Your task to perform on an android device: all mails in gmail Image 0: 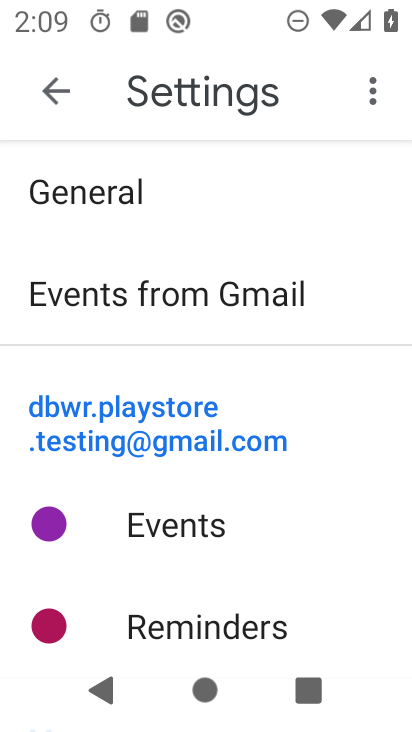
Step 0: press home button
Your task to perform on an android device: all mails in gmail Image 1: 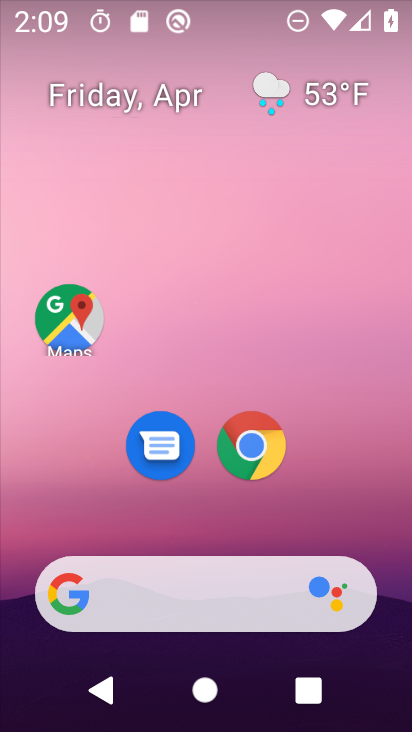
Step 1: drag from (380, 446) to (385, 101)
Your task to perform on an android device: all mails in gmail Image 2: 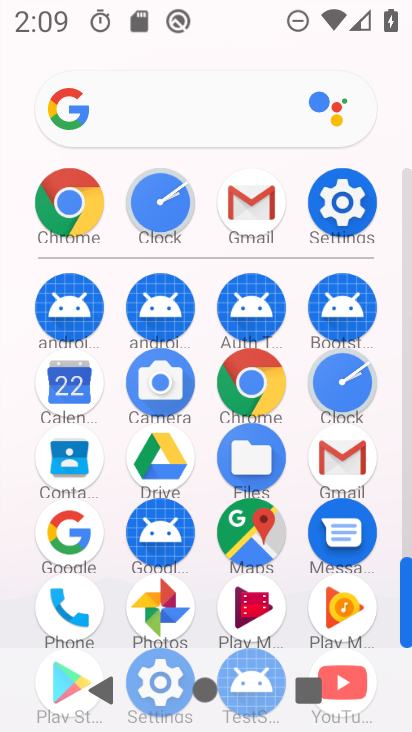
Step 2: click (353, 459)
Your task to perform on an android device: all mails in gmail Image 3: 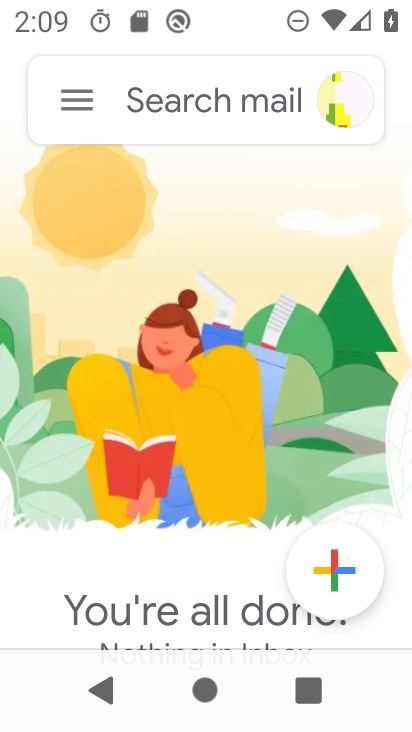
Step 3: click (76, 106)
Your task to perform on an android device: all mails in gmail Image 4: 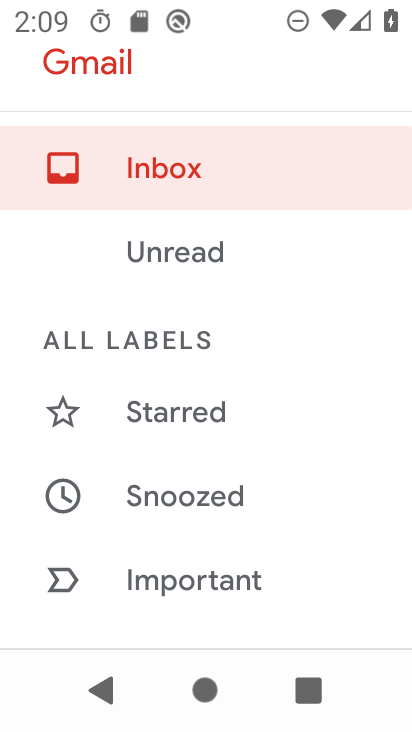
Step 4: drag from (334, 521) to (361, 321)
Your task to perform on an android device: all mails in gmail Image 5: 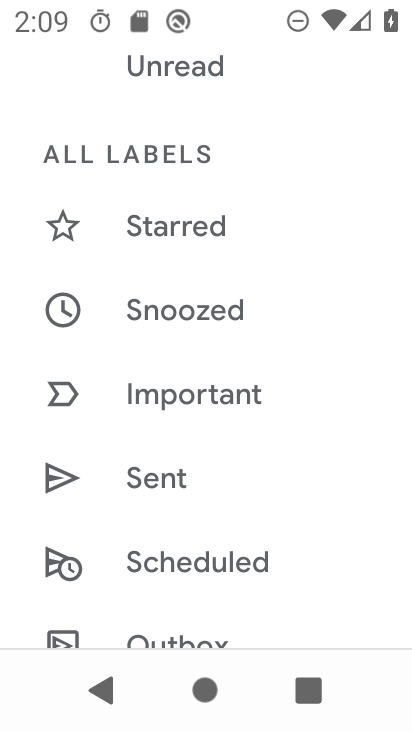
Step 5: drag from (322, 546) to (358, 308)
Your task to perform on an android device: all mails in gmail Image 6: 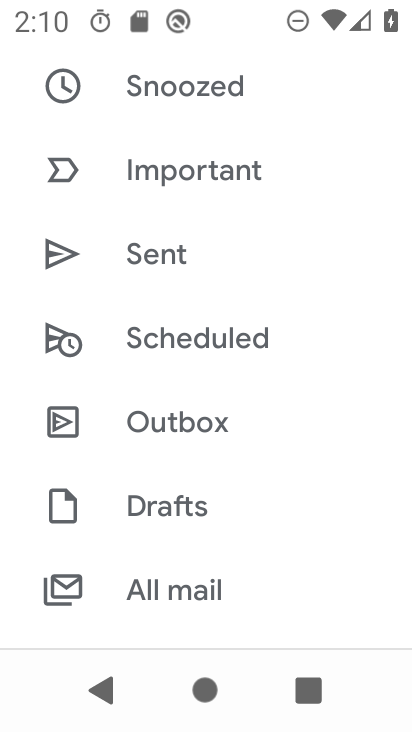
Step 6: drag from (338, 554) to (346, 340)
Your task to perform on an android device: all mails in gmail Image 7: 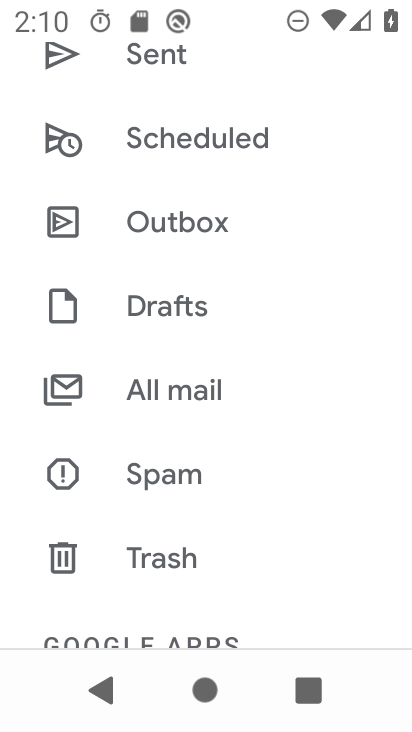
Step 7: drag from (322, 527) to (322, 321)
Your task to perform on an android device: all mails in gmail Image 8: 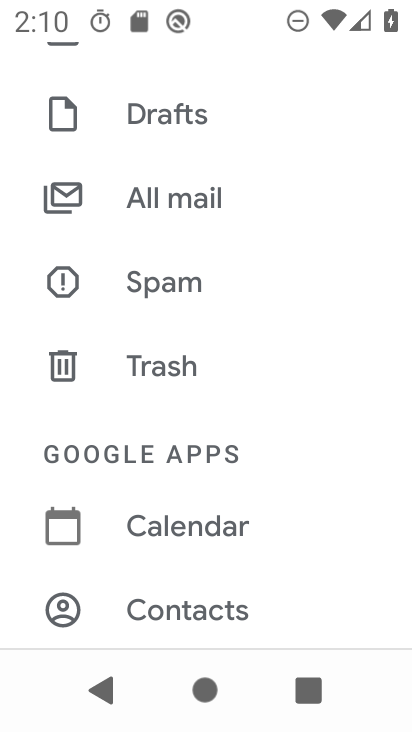
Step 8: drag from (341, 440) to (333, 328)
Your task to perform on an android device: all mails in gmail Image 9: 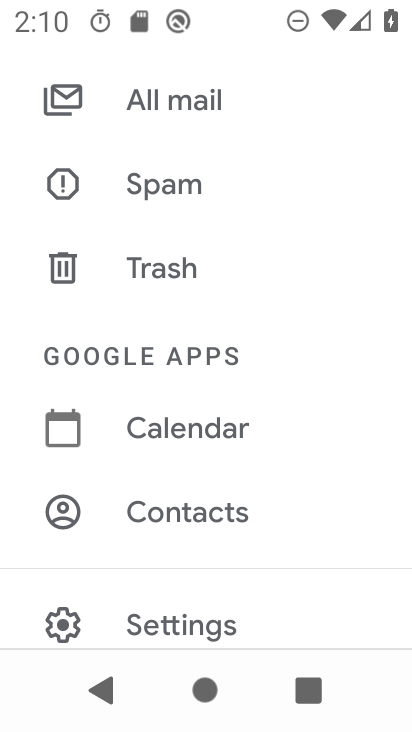
Step 9: drag from (330, 181) to (317, 364)
Your task to perform on an android device: all mails in gmail Image 10: 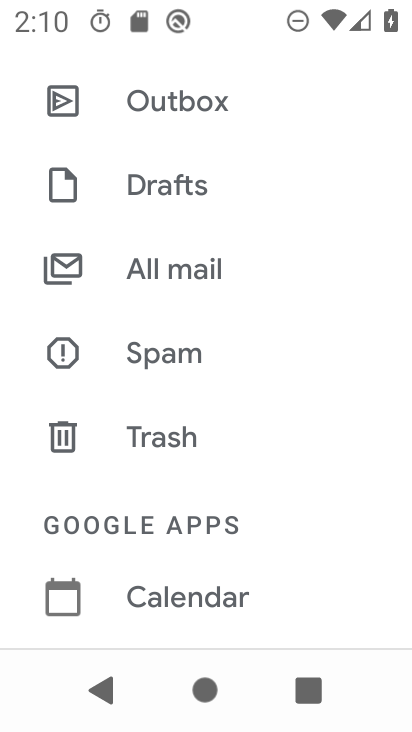
Step 10: drag from (325, 200) to (322, 337)
Your task to perform on an android device: all mails in gmail Image 11: 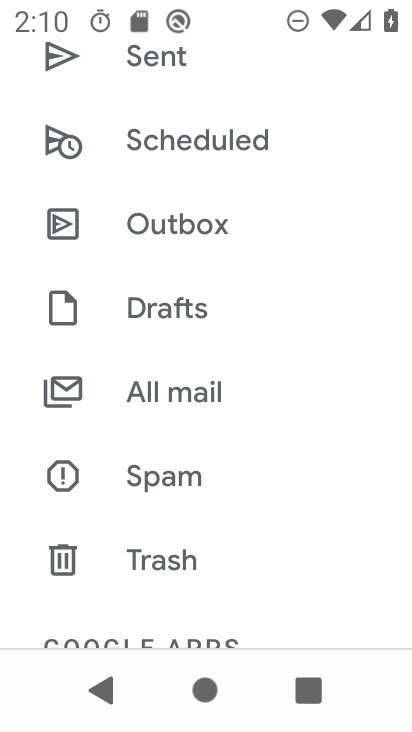
Step 11: click (202, 393)
Your task to perform on an android device: all mails in gmail Image 12: 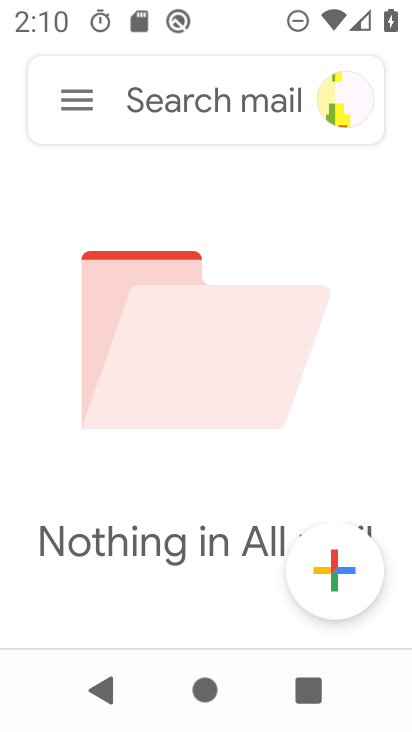
Step 12: task complete